Your task to perform on an android device: add a contact Image 0: 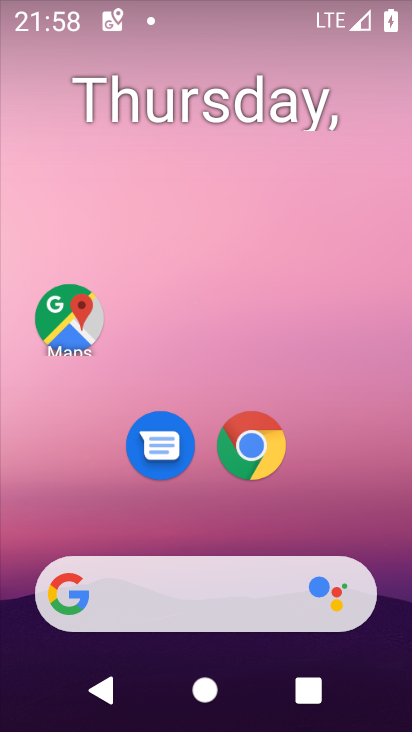
Step 0: click (248, 66)
Your task to perform on an android device: add a contact Image 1: 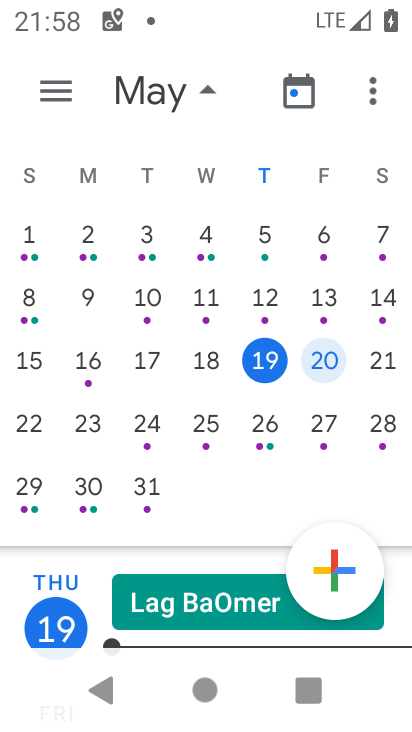
Step 1: drag from (199, 517) to (220, 298)
Your task to perform on an android device: add a contact Image 2: 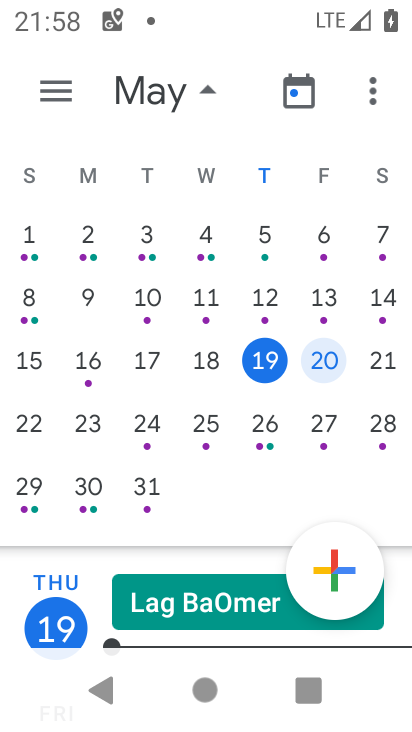
Step 2: drag from (214, 611) to (246, 241)
Your task to perform on an android device: add a contact Image 3: 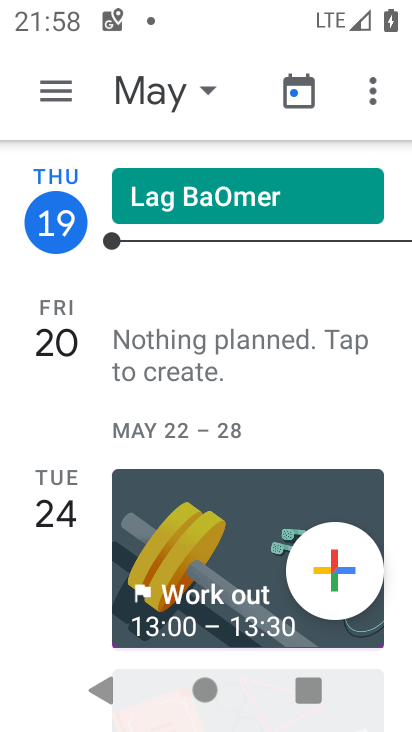
Step 3: drag from (204, 277) to (294, 619)
Your task to perform on an android device: add a contact Image 4: 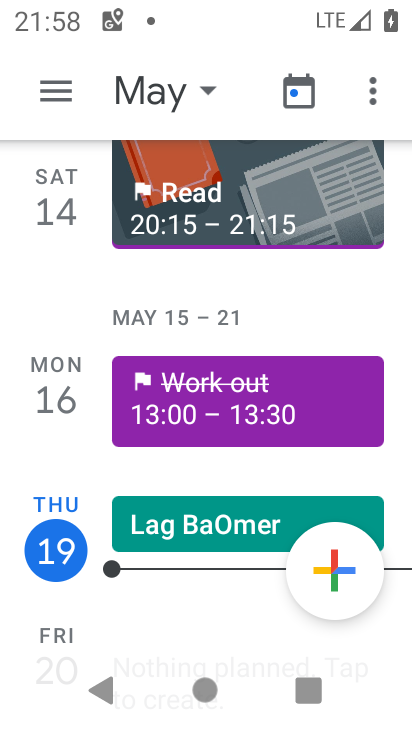
Step 4: drag from (150, 262) to (386, 595)
Your task to perform on an android device: add a contact Image 5: 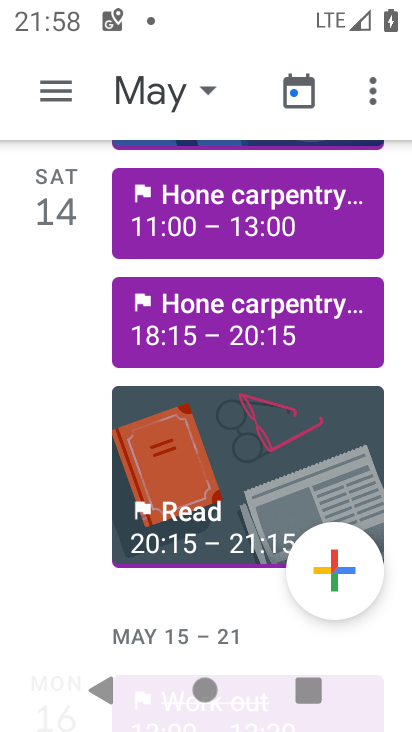
Step 5: drag from (84, 165) to (247, 492)
Your task to perform on an android device: add a contact Image 6: 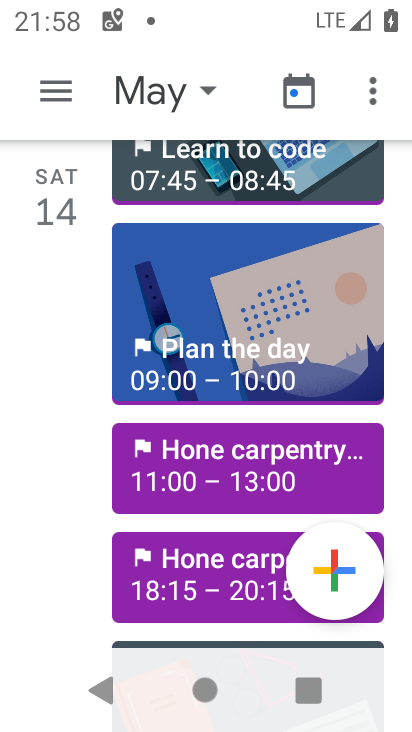
Step 6: drag from (103, 159) to (267, 463)
Your task to perform on an android device: add a contact Image 7: 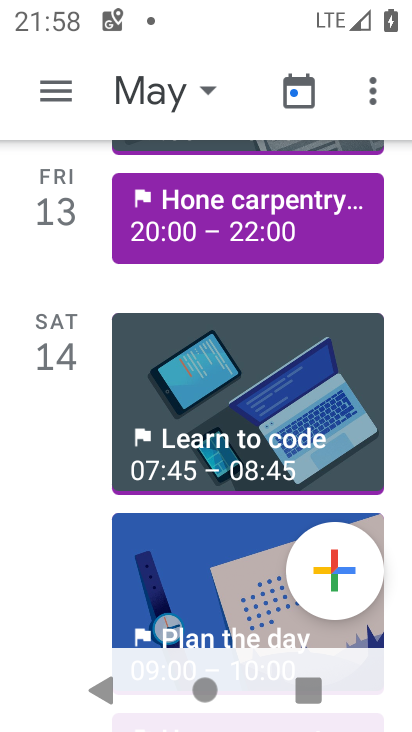
Step 7: drag from (250, 537) to (320, 267)
Your task to perform on an android device: add a contact Image 8: 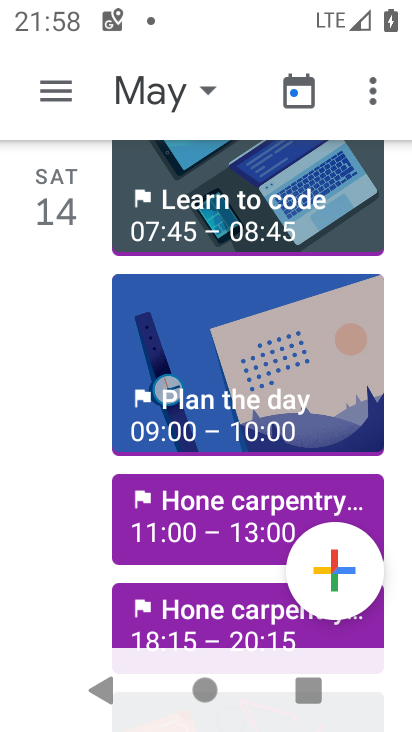
Step 8: drag from (282, 180) to (351, 646)
Your task to perform on an android device: add a contact Image 9: 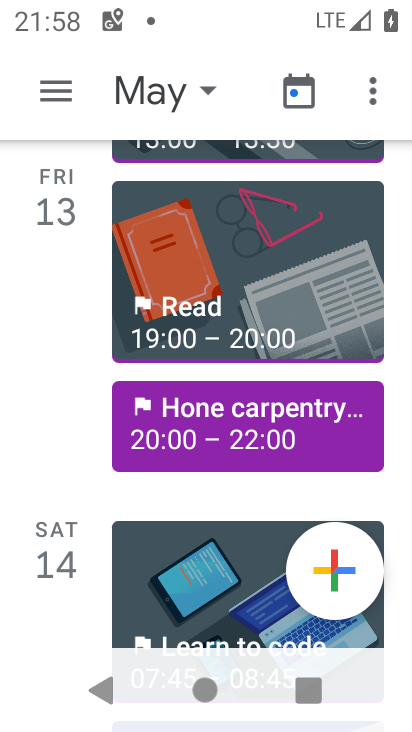
Step 9: drag from (236, 266) to (274, 617)
Your task to perform on an android device: add a contact Image 10: 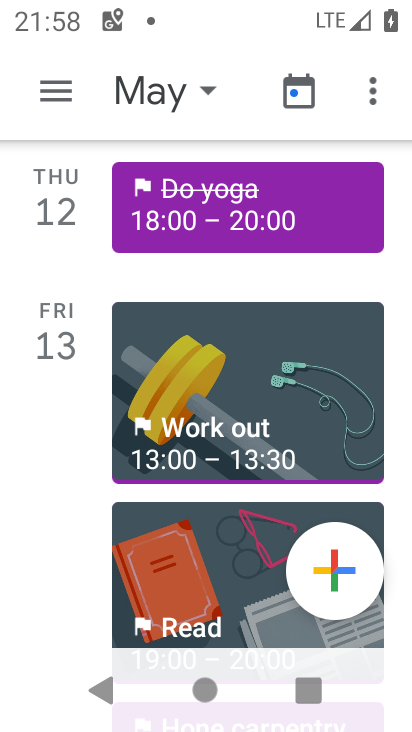
Step 10: click (200, 74)
Your task to perform on an android device: add a contact Image 11: 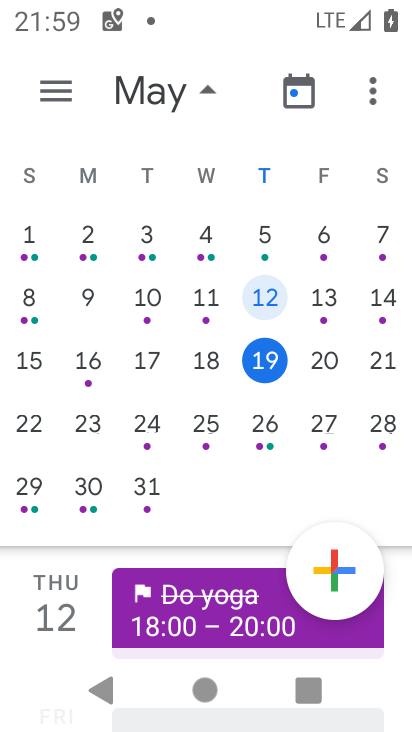
Step 11: press home button
Your task to perform on an android device: add a contact Image 12: 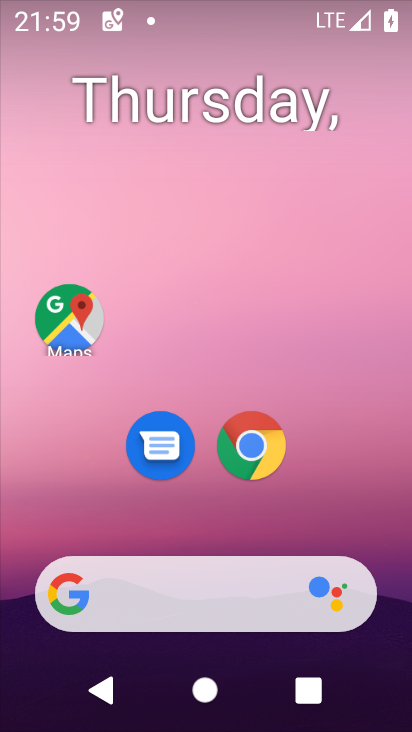
Step 12: drag from (213, 460) to (254, 225)
Your task to perform on an android device: add a contact Image 13: 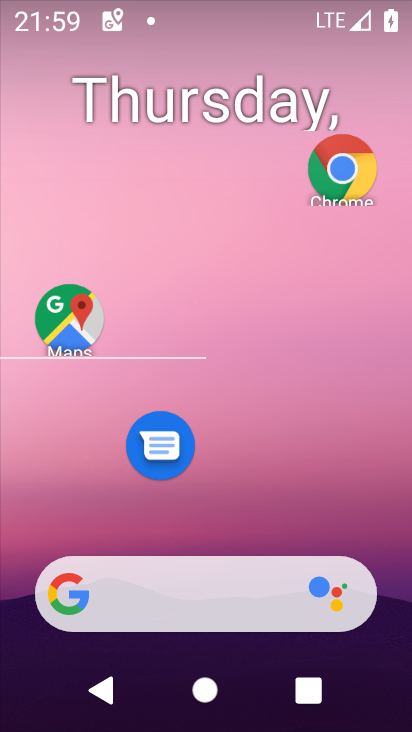
Step 13: click (373, 498)
Your task to perform on an android device: add a contact Image 14: 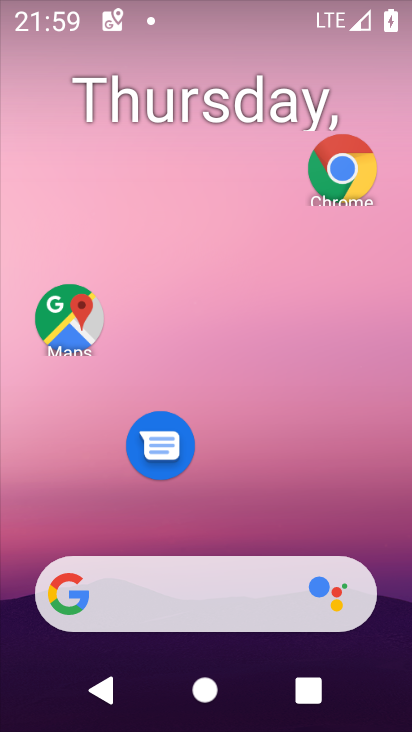
Step 14: drag from (213, 512) to (240, 221)
Your task to perform on an android device: add a contact Image 15: 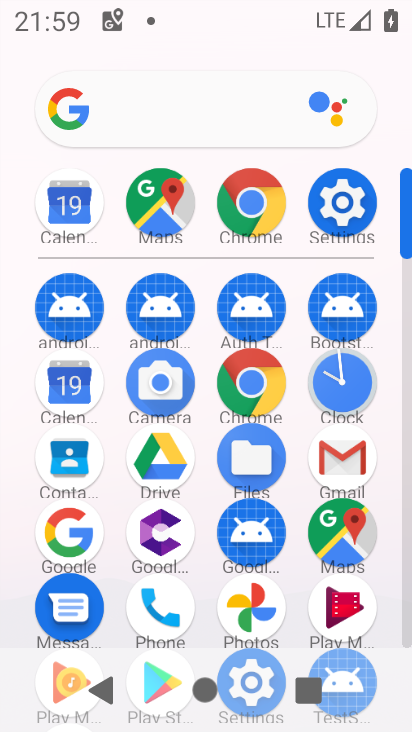
Step 15: click (52, 390)
Your task to perform on an android device: add a contact Image 16: 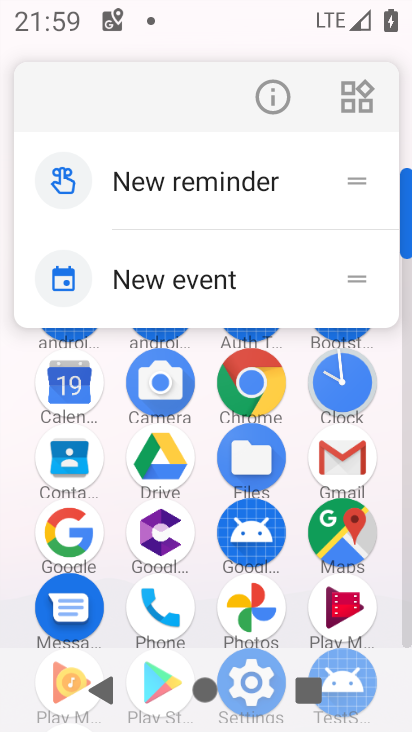
Step 16: click (70, 457)
Your task to perform on an android device: add a contact Image 17: 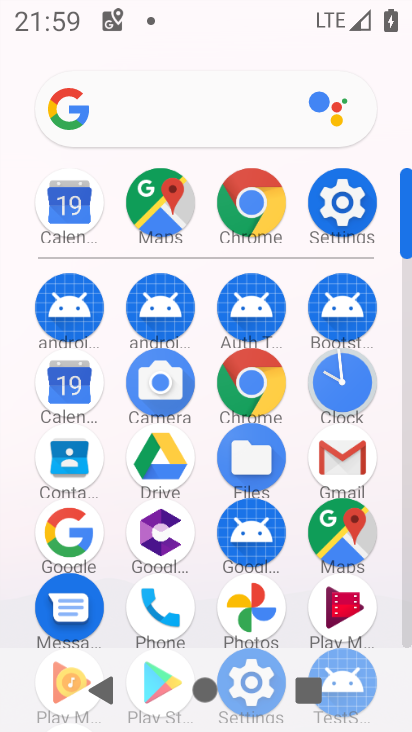
Step 17: click (69, 457)
Your task to perform on an android device: add a contact Image 18: 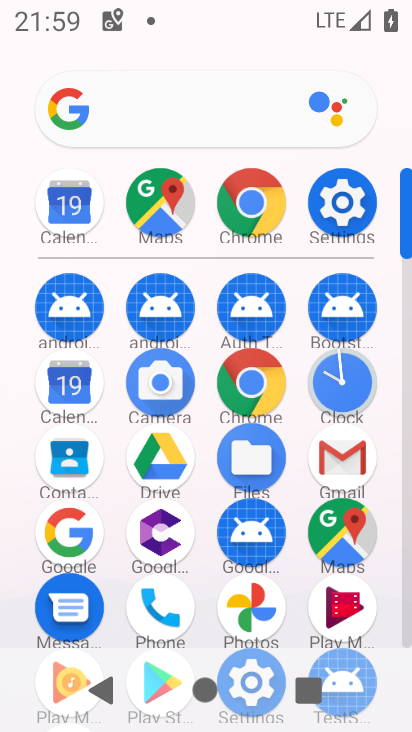
Step 18: click (69, 457)
Your task to perform on an android device: add a contact Image 19: 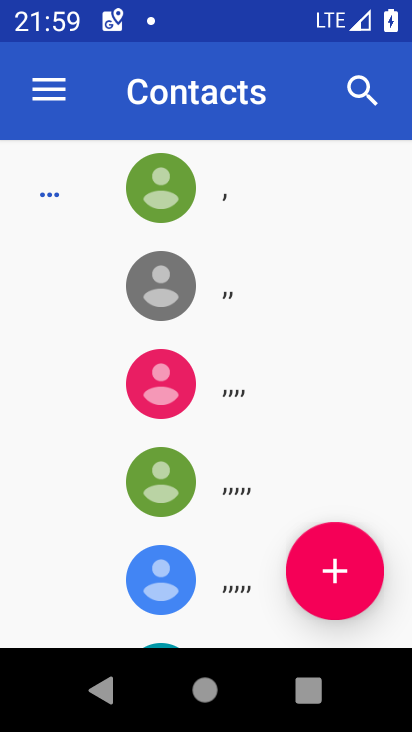
Step 19: click (337, 586)
Your task to perform on an android device: add a contact Image 20: 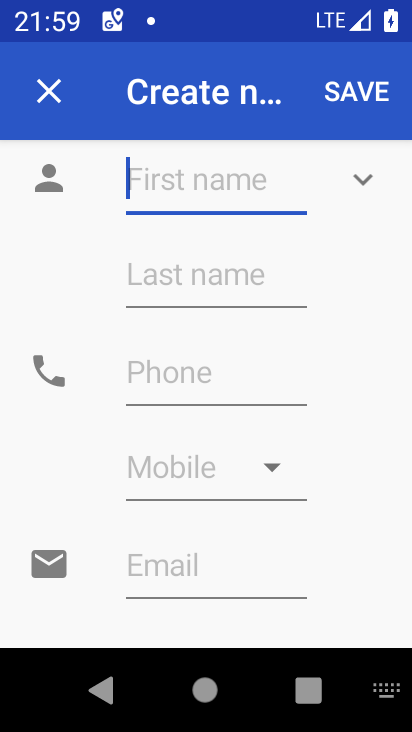
Step 20: type "nn"
Your task to perform on an android device: add a contact Image 21: 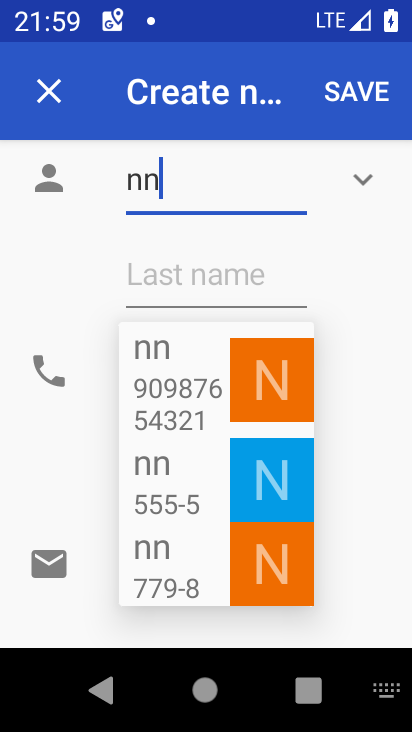
Step 21: click (172, 475)
Your task to perform on an android device: add a contact Image 22: 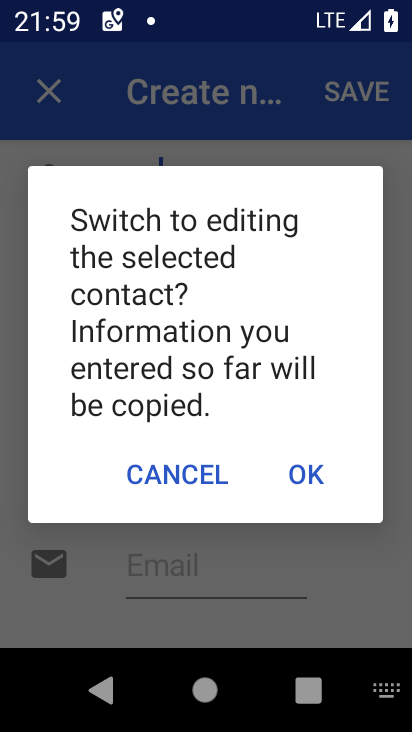
Step 22: click (312, 468)
Your task to perform on an android device: add a contact Image 23: 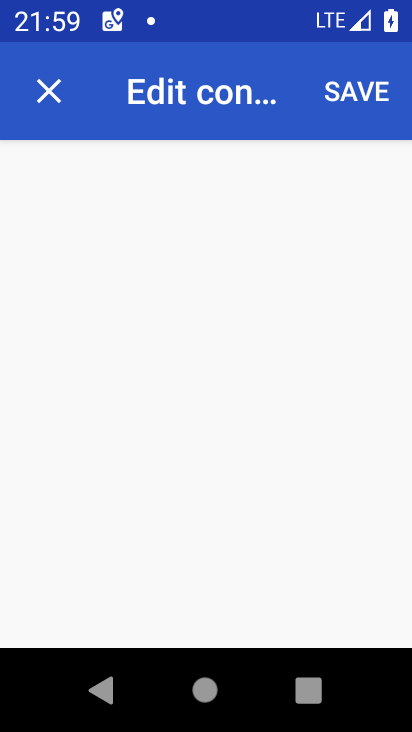
Step 23: click (372, 96)
Your task to perform on an android device: add a contact Image 24: 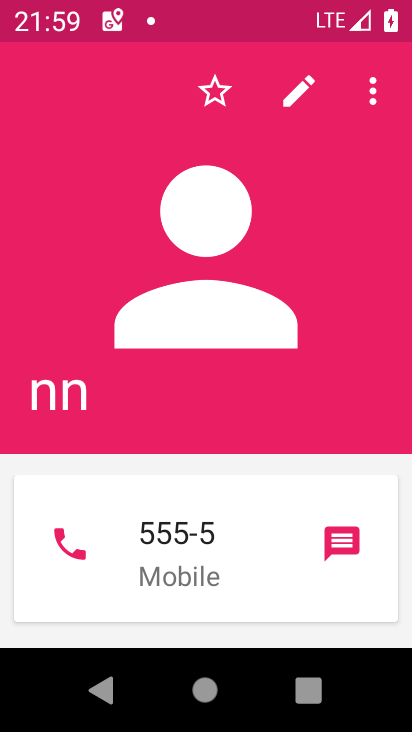
Step 24: task complete